Your task to perform on an android device: turn on showing notifications on the lock screen Image 0: 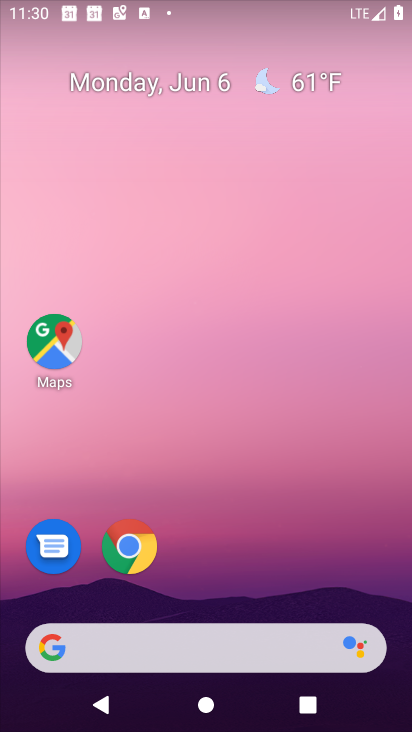
Step 0: drag from (337, 562) to (319, 62)
Your task to perform on an android device: turn on showing notifications on the lock screen Image 1: 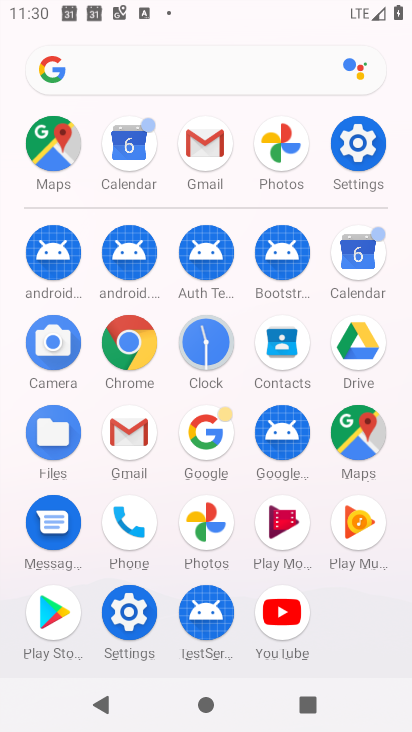
Step 1: click (133, 611)
Your task to perform on an android device: turn on showing notifications on the lock screen Image 2: 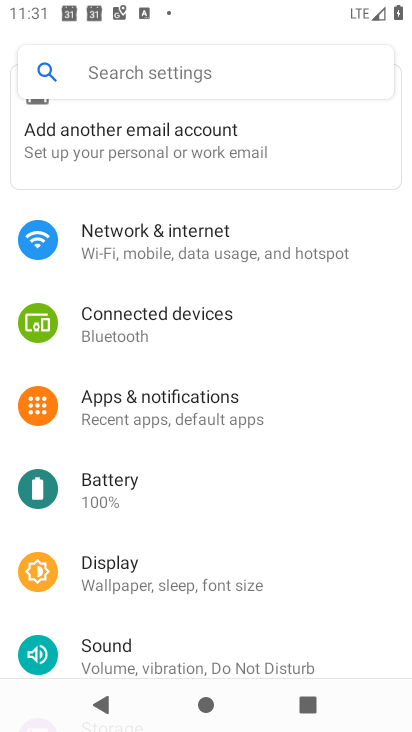
Step 2: click (150, 406)
Your task to perform on an android device: turn on showing notifications on the lock screen Image 3: 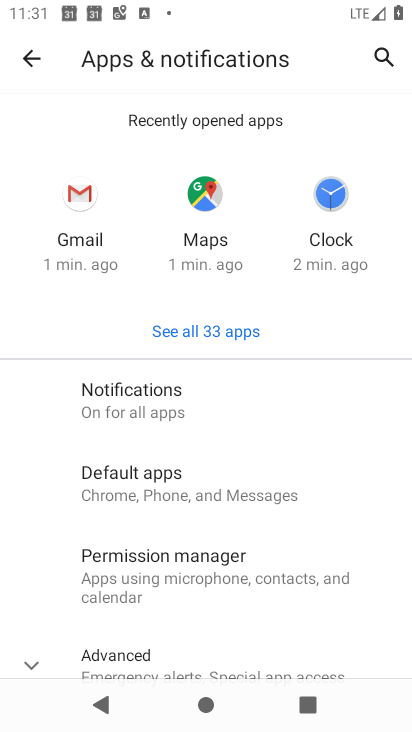
Step 3: click (149, 395)
Your task to perform on an android device: turn on showing notifications on the lock screen Image 4: 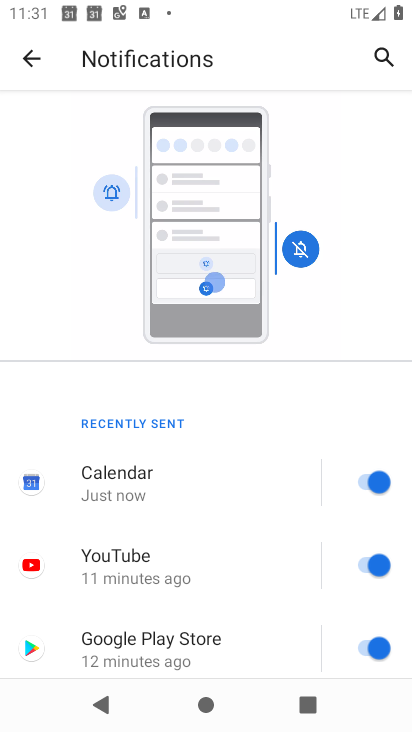
Step 4: drag from (320, 651) to (251, 126)
Your task to perform on an android device: turn on showing notifications on the lock screen Image 5: 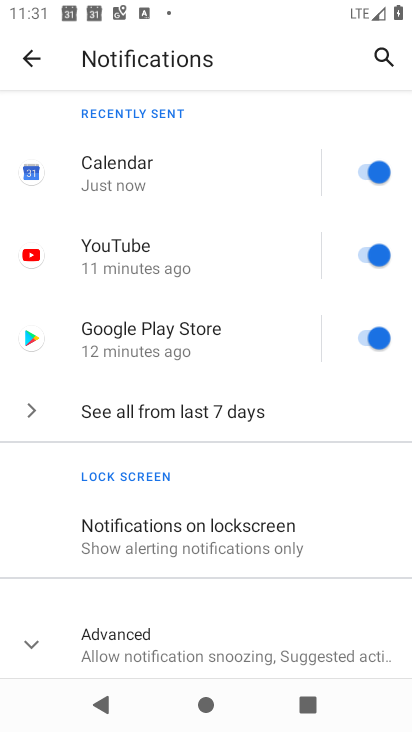
Step 5: click (162, 521)
Your task to perform on an android device: turn on showing notifications on the lock screen Image 6: 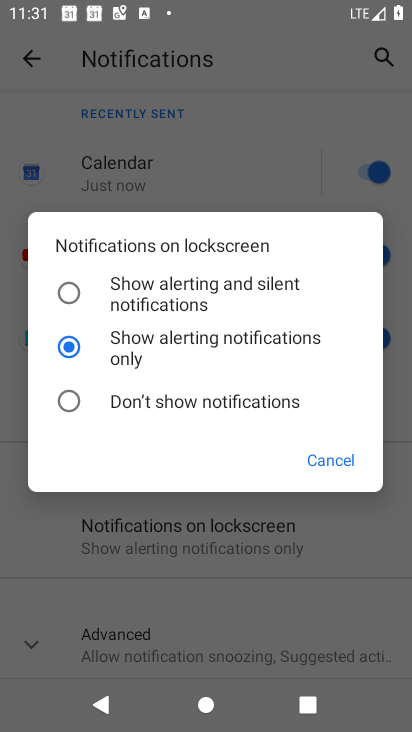
Step 6: task complete